Your task to perform on an android device: Go to Reddit.com Image 0: 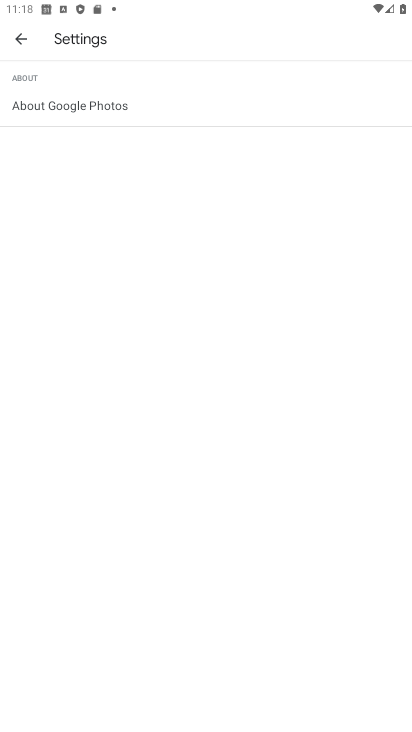
Step 0: press home button
Your task to perform on an android device: Go to Reddit.com Image 1: 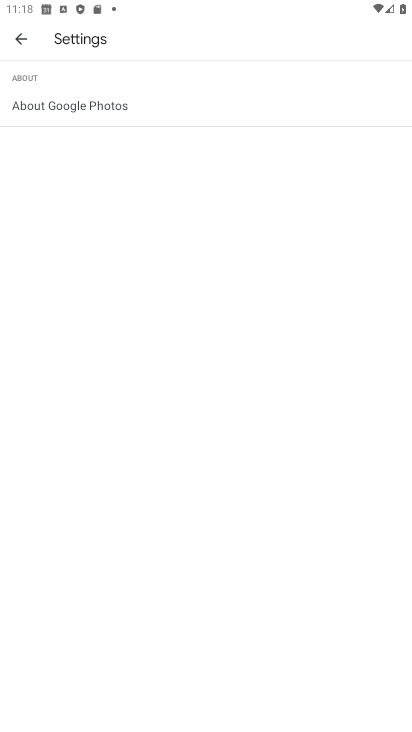
Step 1: press home button
Your task to perform on an android device: Go to Reddit.com Image 2: 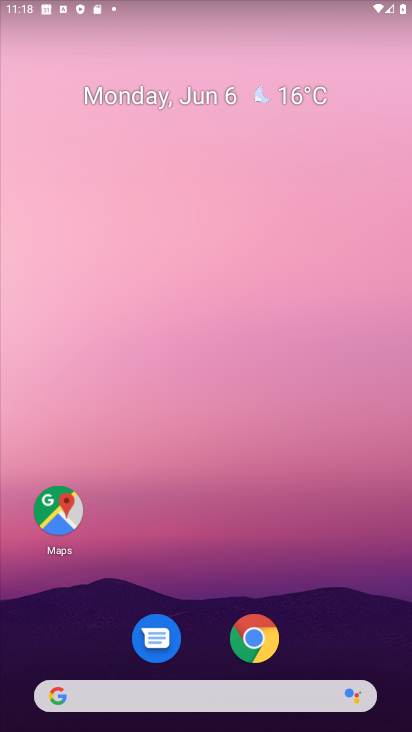
Step 2: drag from (184, 702) to (178, 151)
Your task to perform on an android device: Go to Reddit.com Image 3: 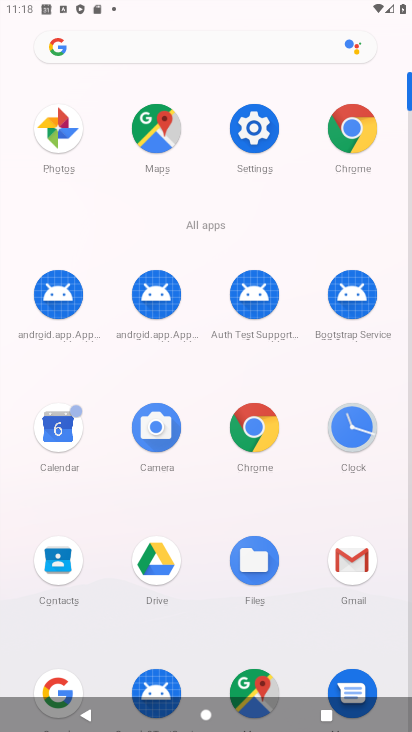
Step 3: click (348, 132)
Your task to perform on an android device: Go to Reddit.com Image 4: 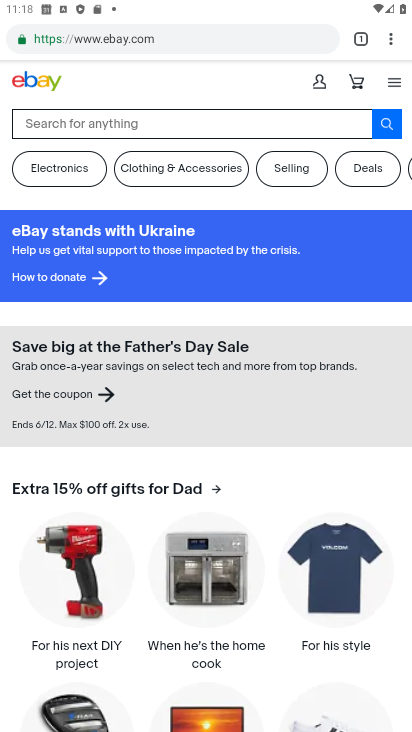
Step 4: click (140, 27)
Your task to perform on an android device: Go to Reddit.com Image 5: 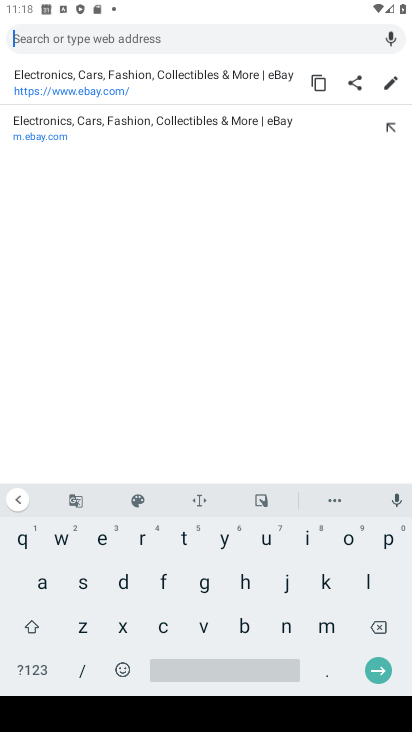
Step 5: click (137, 536)
Your task to perform on an android device: Go to Reddit.com Image 6: 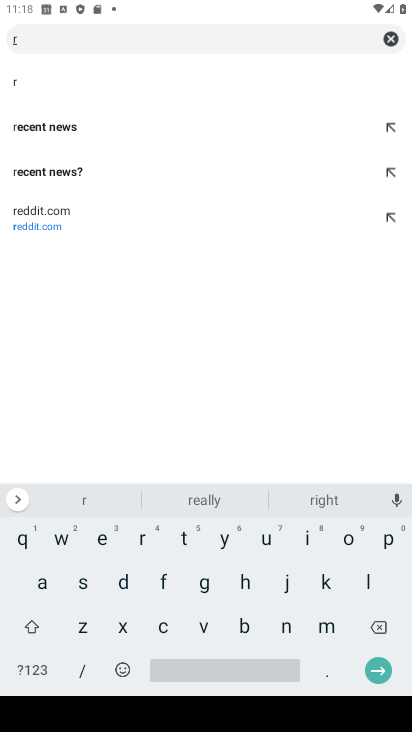
Step 6: click (95, 540)
Your task to perform on an android device: Go to Reddit.com Image 7: 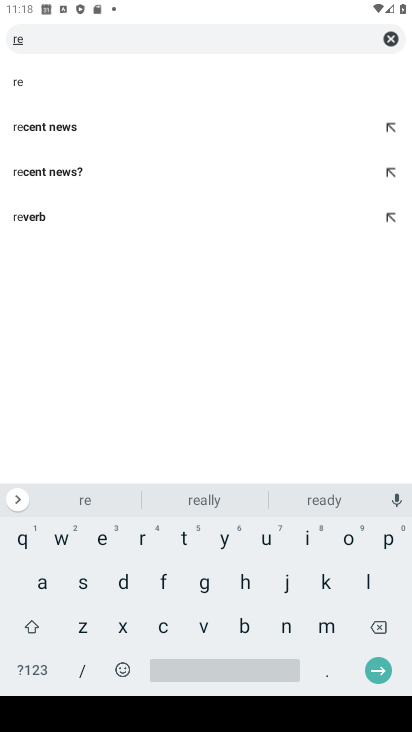
Step 7: click (117, 581)
Your task to perform on an android device: Go to Reddit.com Image 8: 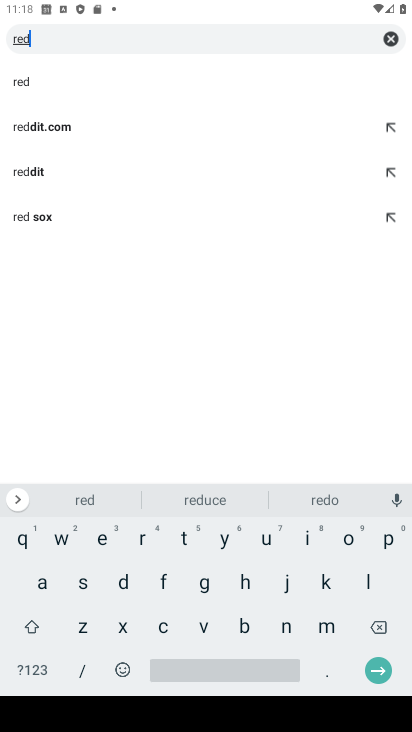
Step 8: click (30, 133)
Your task to perform on an android device: Go to Reddit.com Image 9: 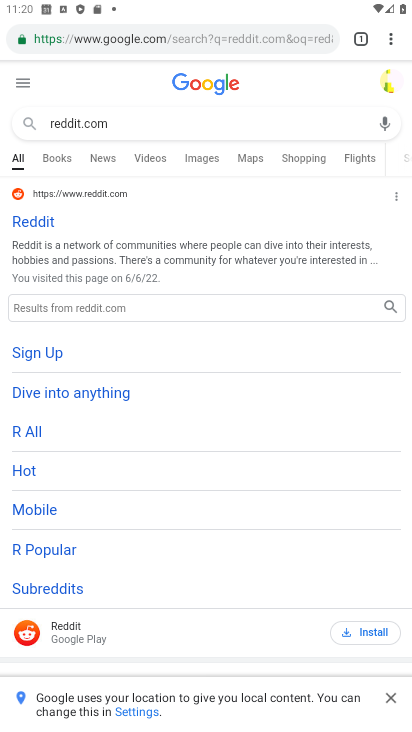
Step 9: task complete